Your task to perform on an android device: change the upload size in google photos Image 0: 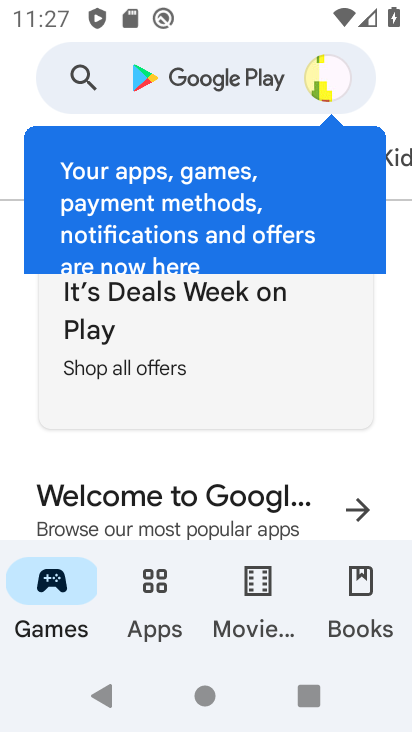
Step 0: press home button
Your task to perform on an android device: change the upload size in google photos Image 1: 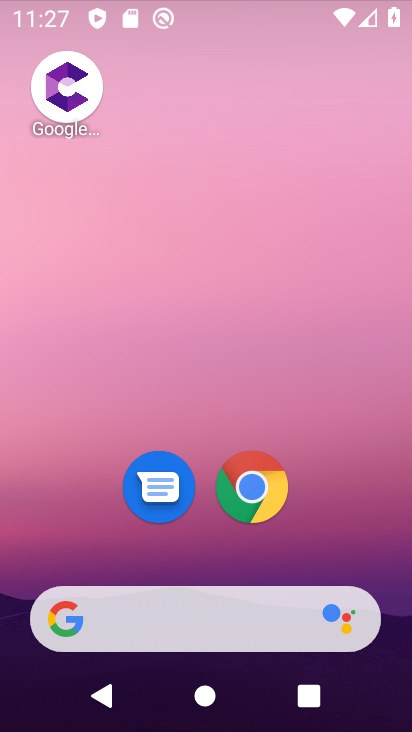
Step 1: drag from (349, 548) to (340, 3)
Your task to perform on an android device: change the upload size in google photos Image 2: 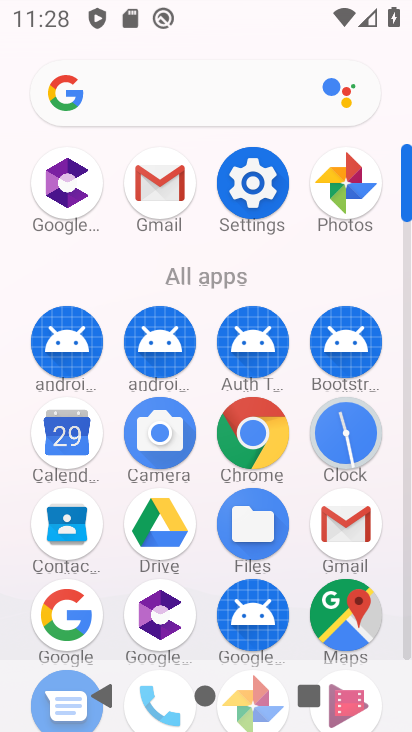
Step 2: click (360, 184)
Your task to perform on an android device: change the upload size in google photos Image 3: 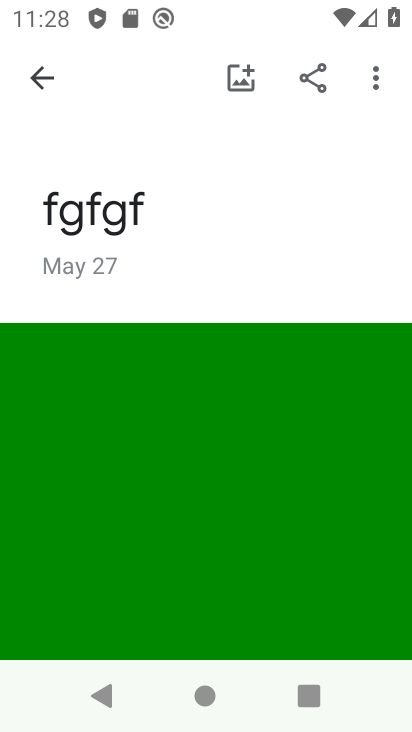
Step 3: click (39, 61)
Your task to perform on an android device: change the upload size in google photos Image 4: 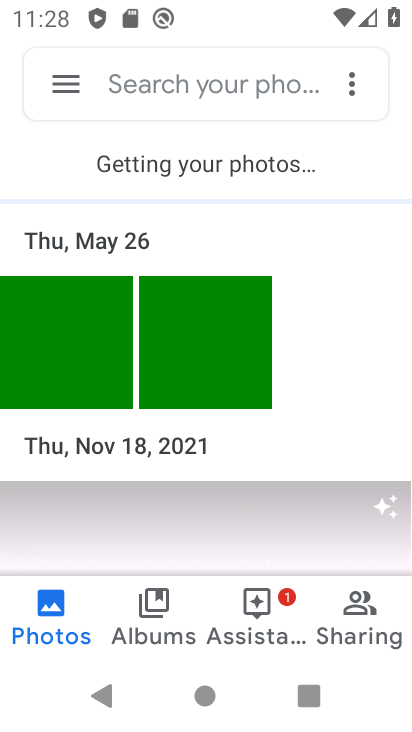
Step 4: click (55, 70)
Your task to perform on an android device: change the upload size in google photos Image 5: 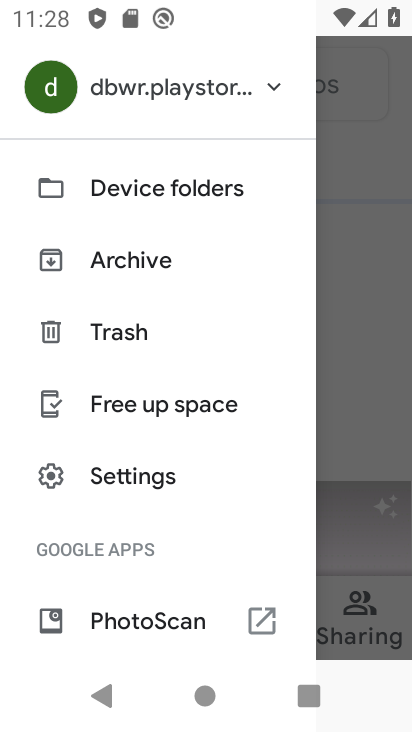
Step 5: click (136, 468)
Your task to perform on an android device: change the upload size in google photos Image 6: 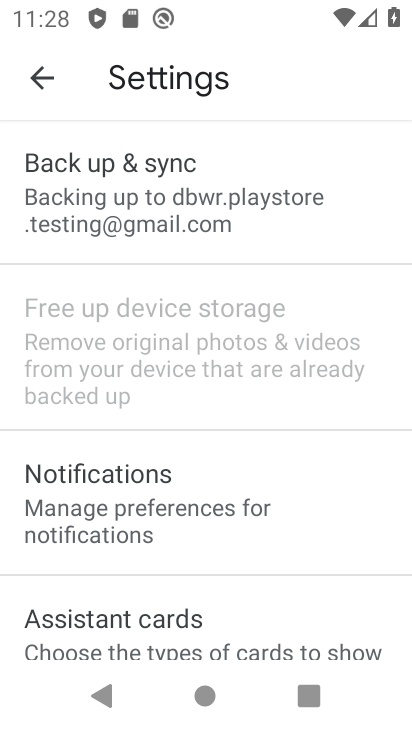
Step 6: click (142, 187)
Your task to perform on an android device: change the upload size in google photos Image 7: 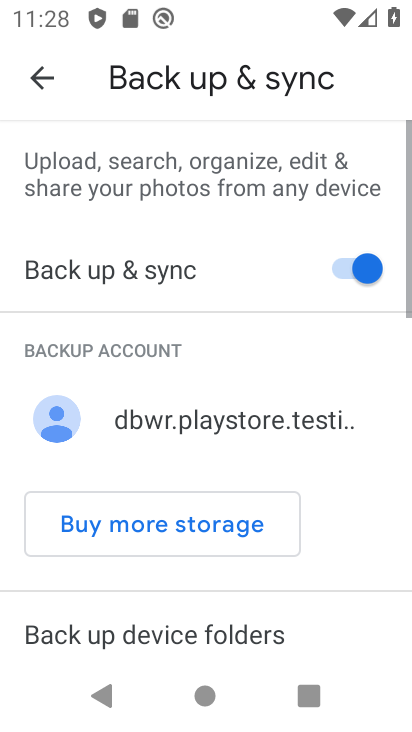
Step 7: drag from (185, 467) to (184, 180)
Your task to perform on an android device: change the upload size in google photos Image 8: 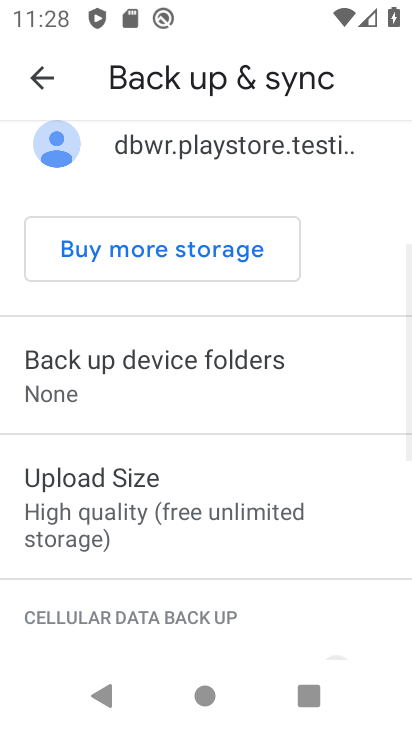
Step 8: click (174, 526)
Your task to perform on an android device: change the upload size in google photos Image 9: 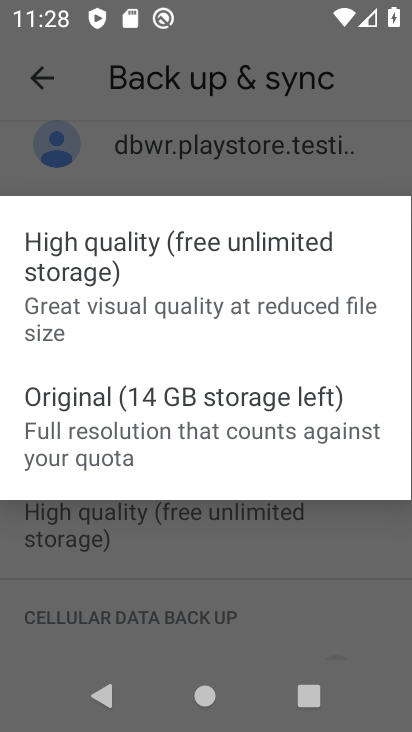
Step 9: click (168, 411)
Your task to perform on an android device: change the upload size in google photos Image 10: 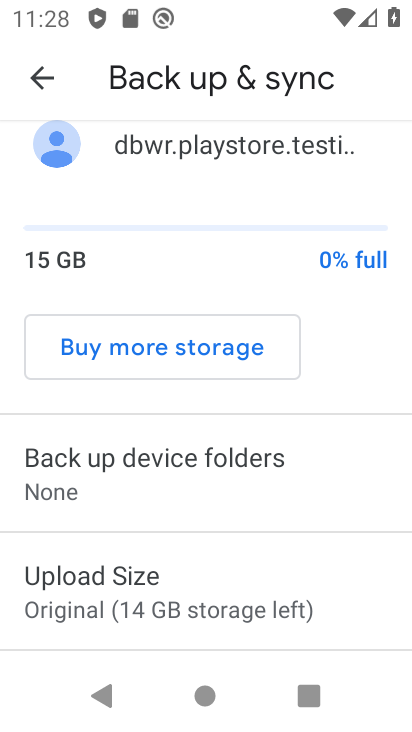
Step 10: task complete